Your task to perform on an android device: Open ESPN.com Image 0: 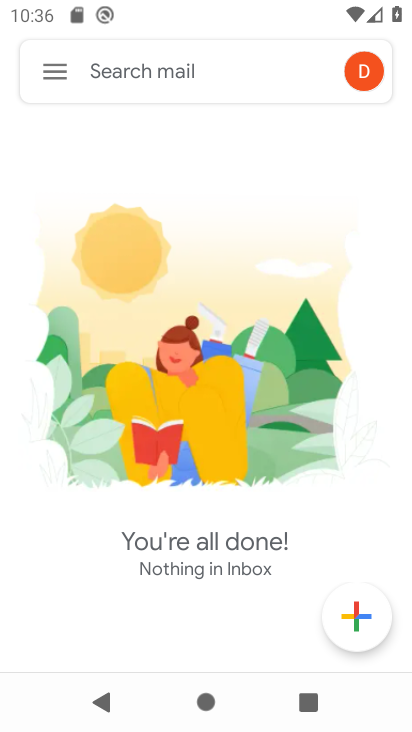
Step 0: press home button
Your task to perform on an android device: Open ESPN.com Image 1: 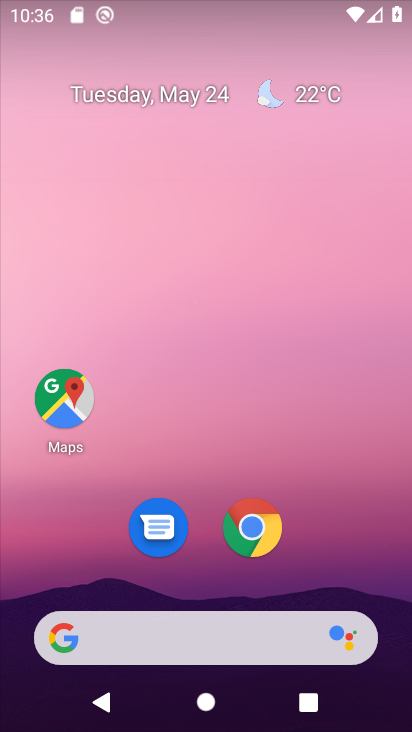
Step 1: click (243, 540)
Your task to perform on an android device: Open ESPN.com Image 2: 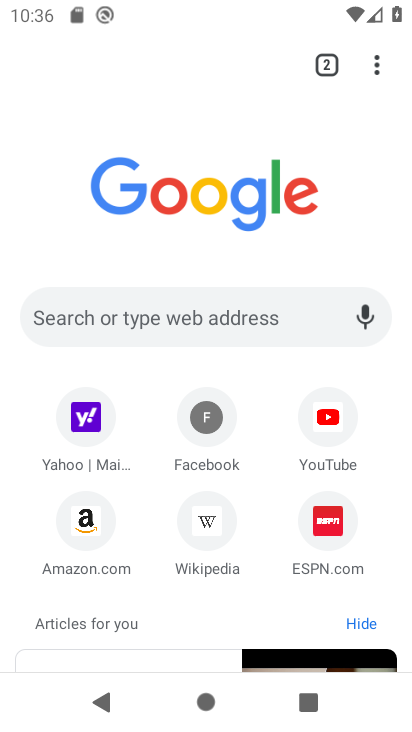
Step 2: click (343, 516)
Your task to perform on an android device: Open ESPN.com Image 3: 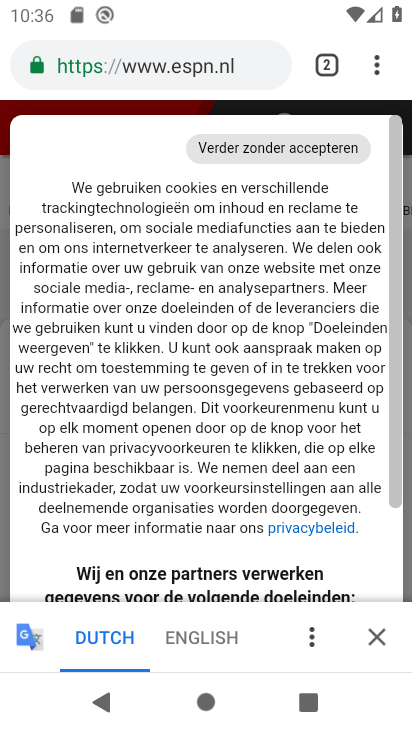
Step 3: click (209, 635)
Your task to perform on an android device: Open ESPN.com Image 4: 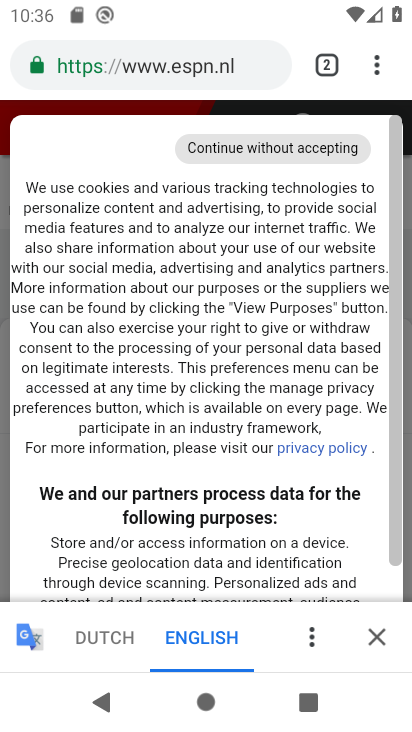
Step 4: drag from (190, 512) to (320, 128)
Your task to perform on an android device: Open ESPN.com Image 5: 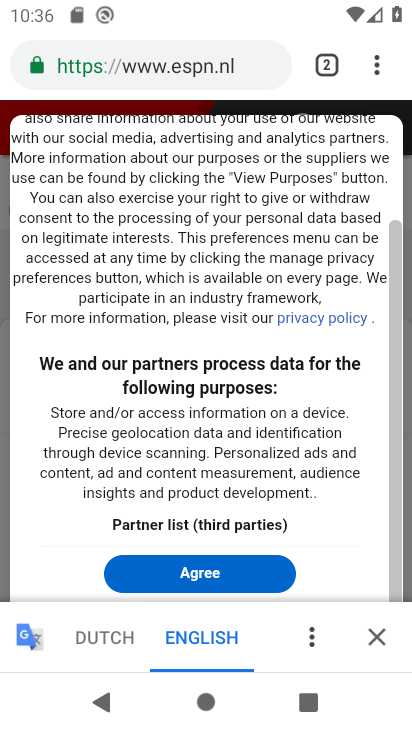
Step 5: click (209, 575)
Your task to perform on an android device: Open ESPN.com Image 6: 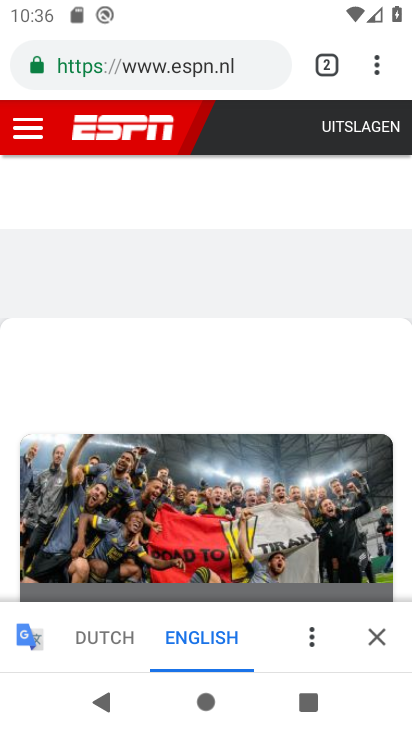
Step 6: task complete